Your task to perform on an android device: Open Google Maps and go to "Timeline" Image 0: 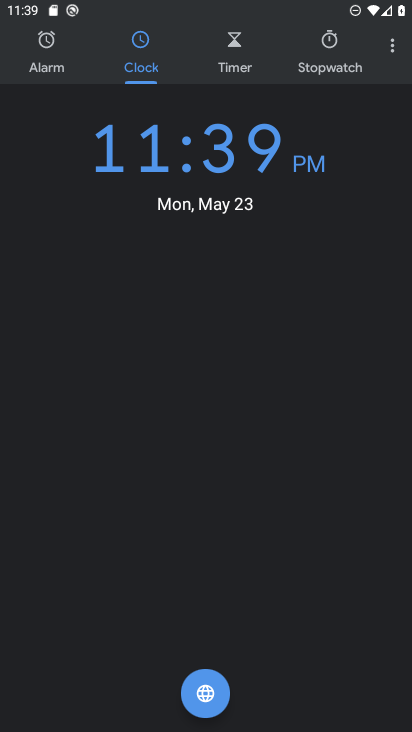
Step 0: press home button
Your task to perform on an android device: Open Google Maps and go to "Timeline" Image 1: 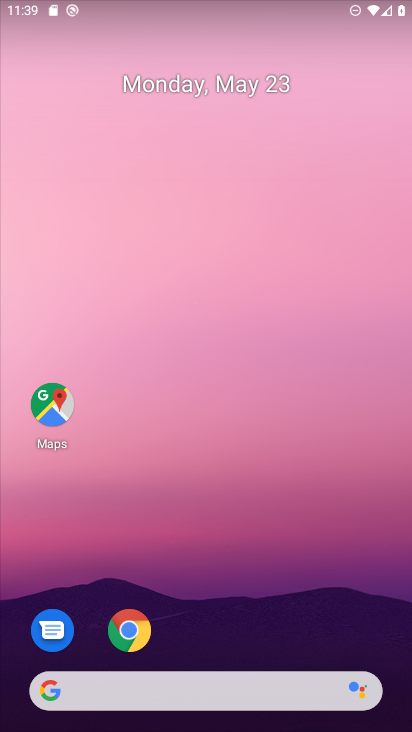
Step 1: click (49, 403)
Your task to perform on an android device: Open Google Maps and go to "Timeline" Image 2: 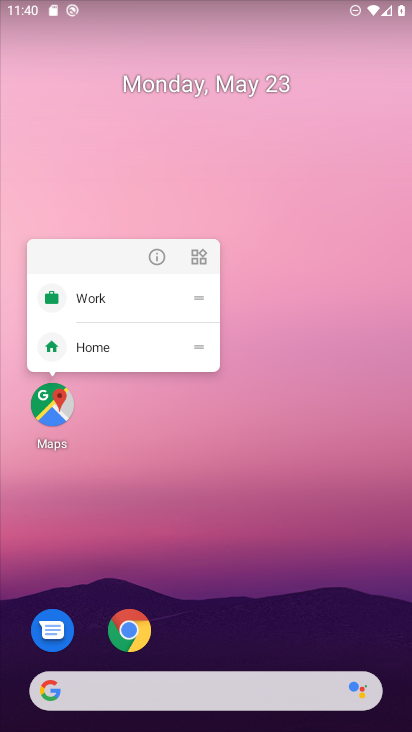
Step 2: click (50, 406)
Your task to perform on an android device: Open Google Maps and go to "Timeline" Image 3: 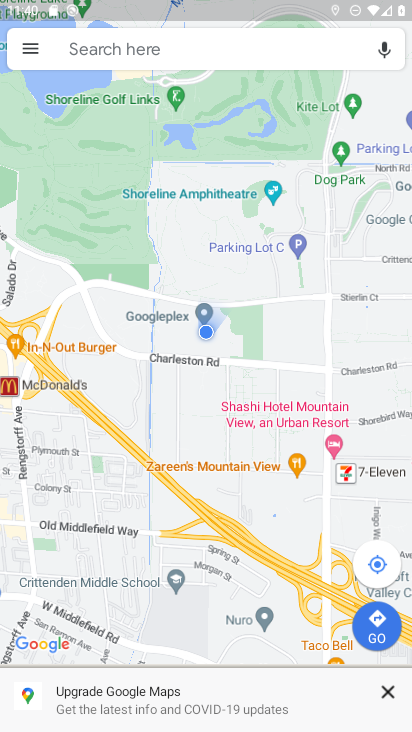
Step 3: click (28, 44)
Your task to perform on an android device: Open Google Maps and go to "Timeline" Image 4: 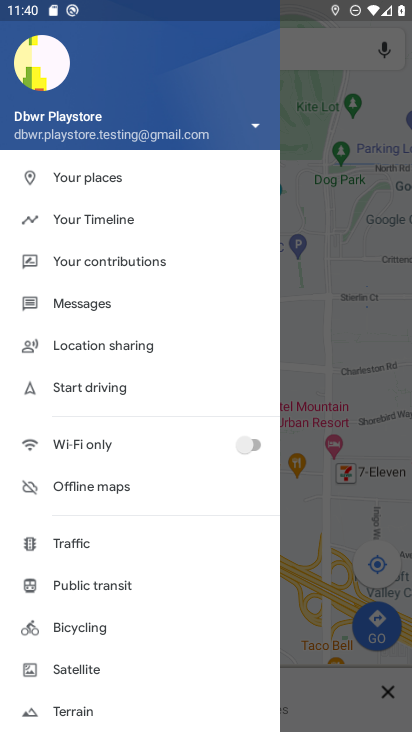
Step 4: click (108, 226)
Your task to perform on an android device: Open Google Maps and go to "Timeline" Image 5: 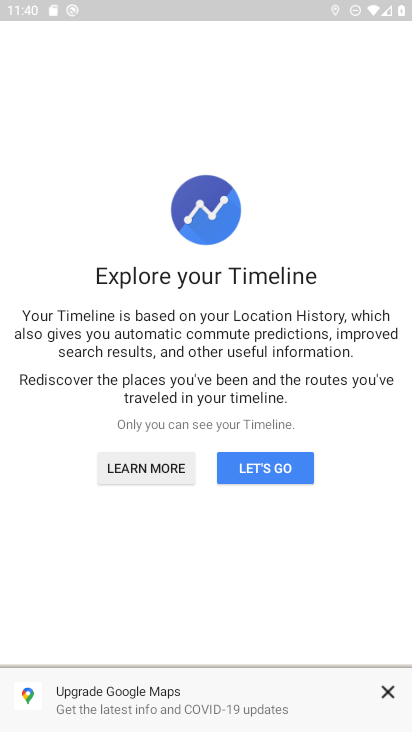
Step 5: task complete